Your task to perform on an android device: set an alarm Image 0: 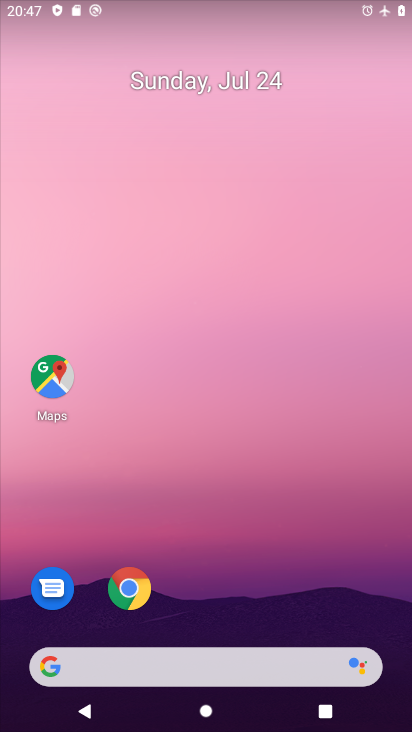
Step 0: drag from (168, 569) to (261, 42)
Your task to perform on an android device: set an alarm Image 1: 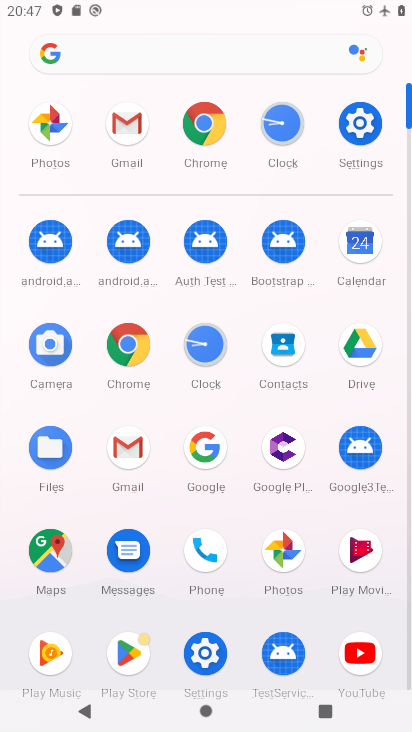
Step 1: click (289, 116)
Your task to perform on an android device: set an alarm Image 2: 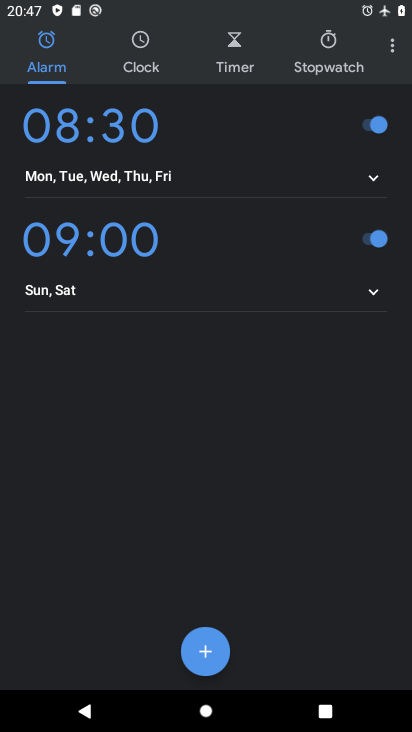
Step 2: task complete